Your task to perform on an android device: toggle location history Image 0: 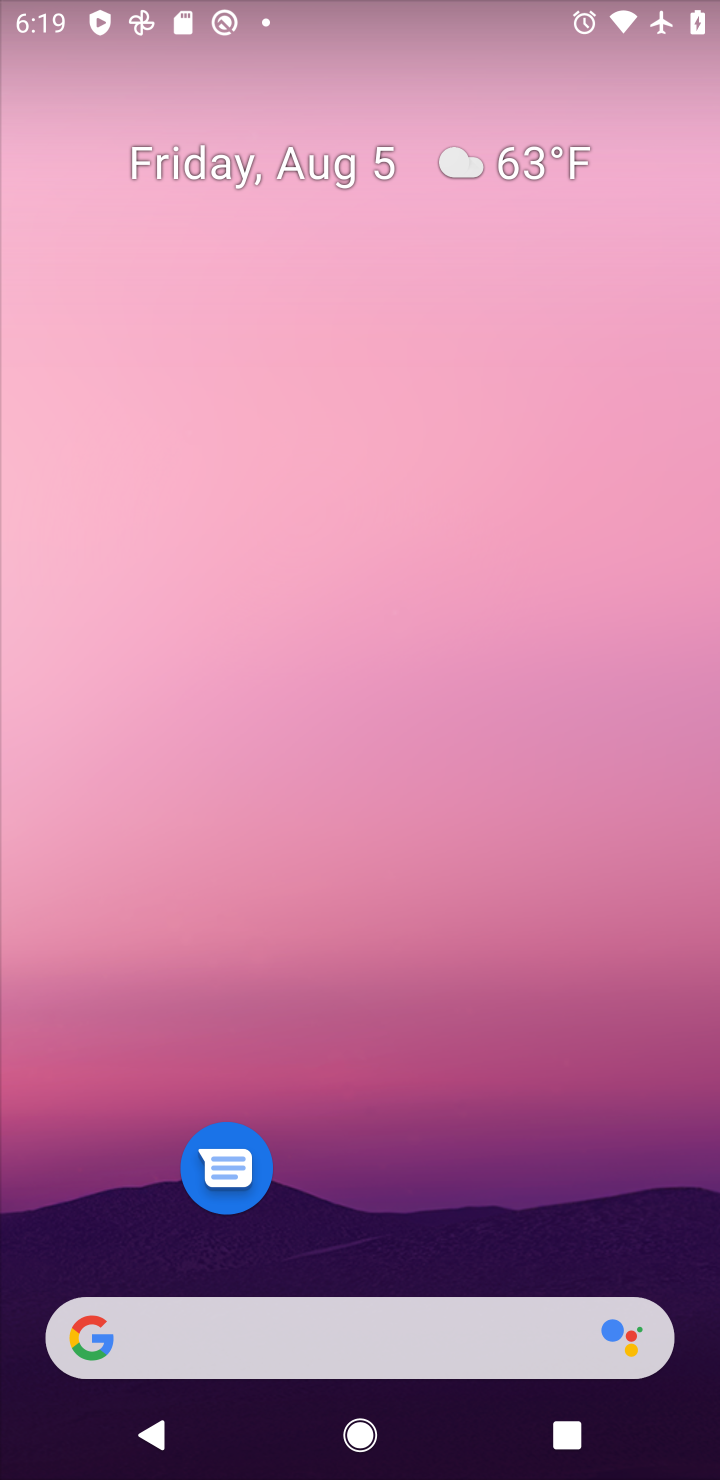
Step 0: press home button
Your task to perform on an android device: toggle location history Image 1: 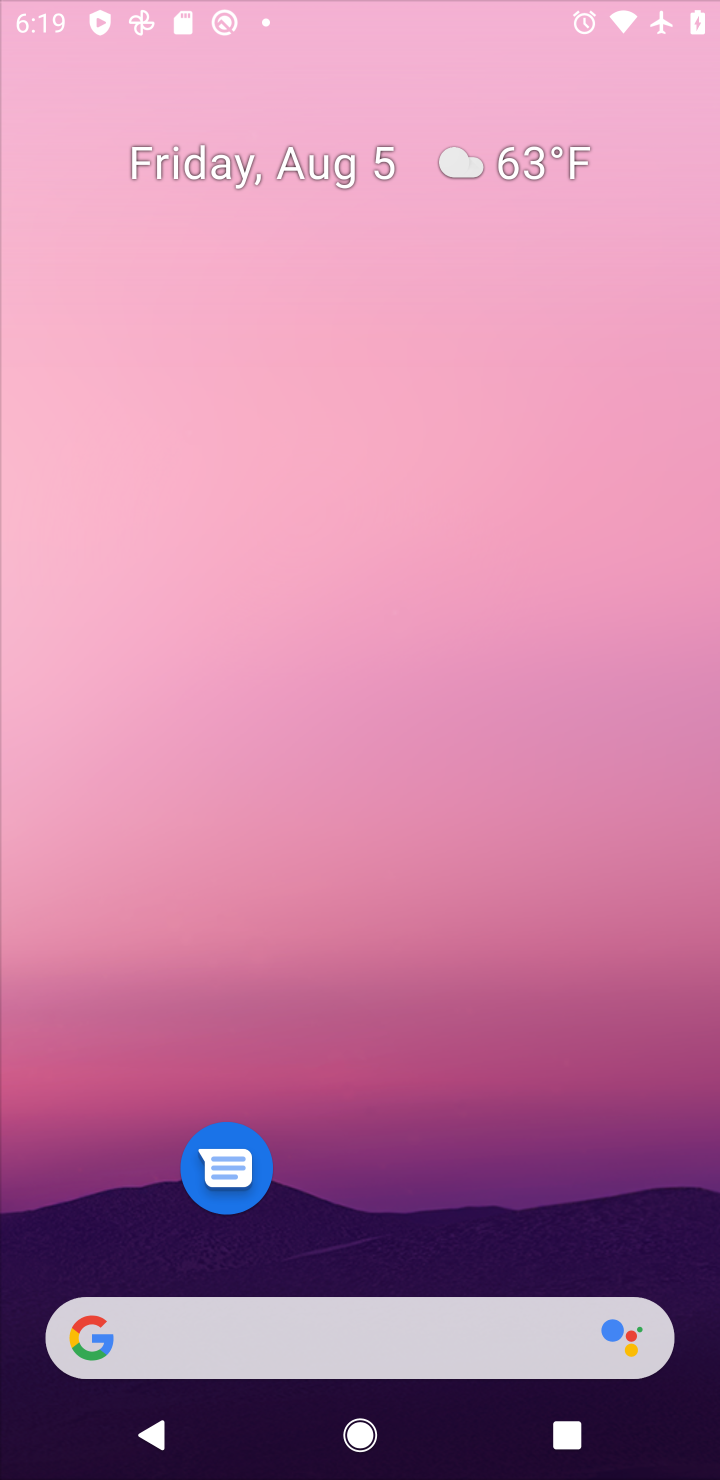
Step 1: drag from (378, 1246) to (576, 444)
Your task to perform on an android device: toggle location history Image 2: 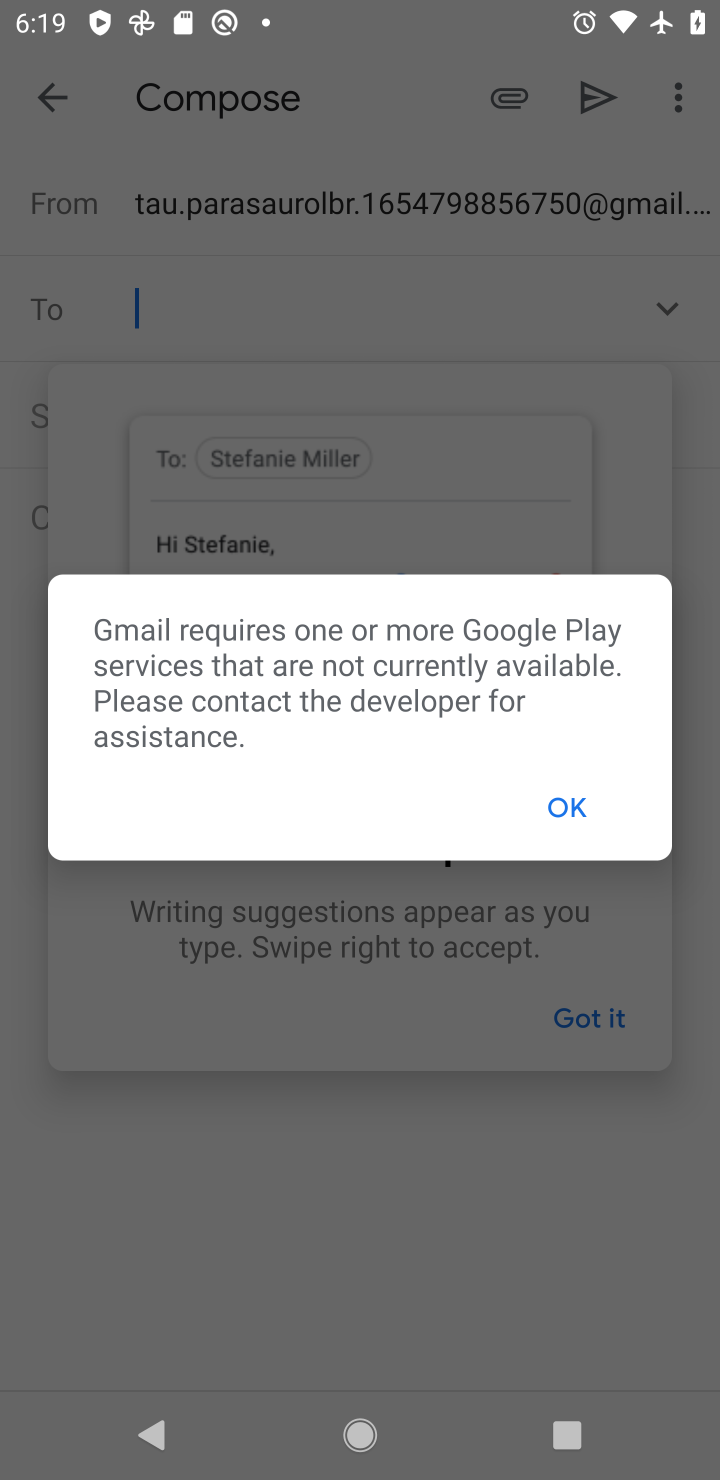
Step 2: press home button
Your task to perform on an android device: toggle location history Image 3: 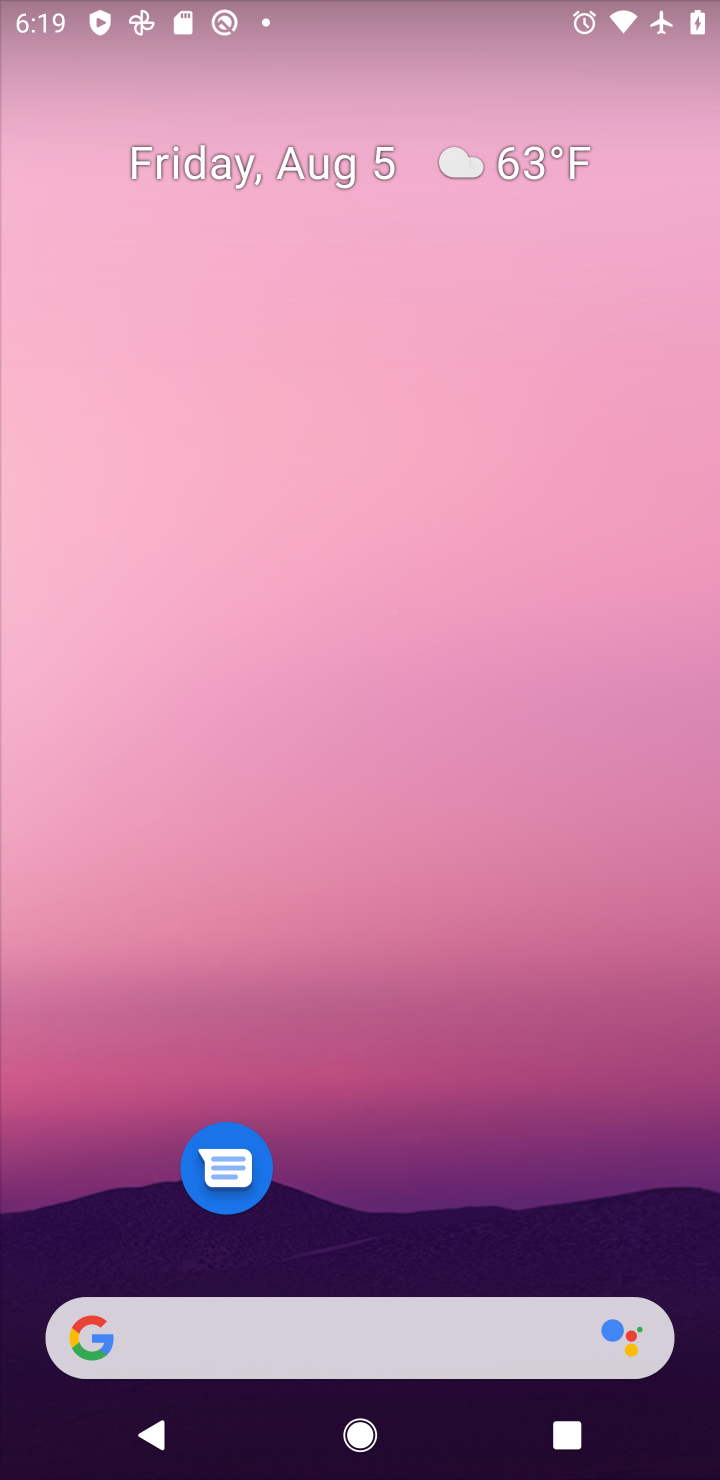
Step 3: drag from (438, 1259) to (329, 380)
Your task to perform on an android device: toggle location history Image 4: 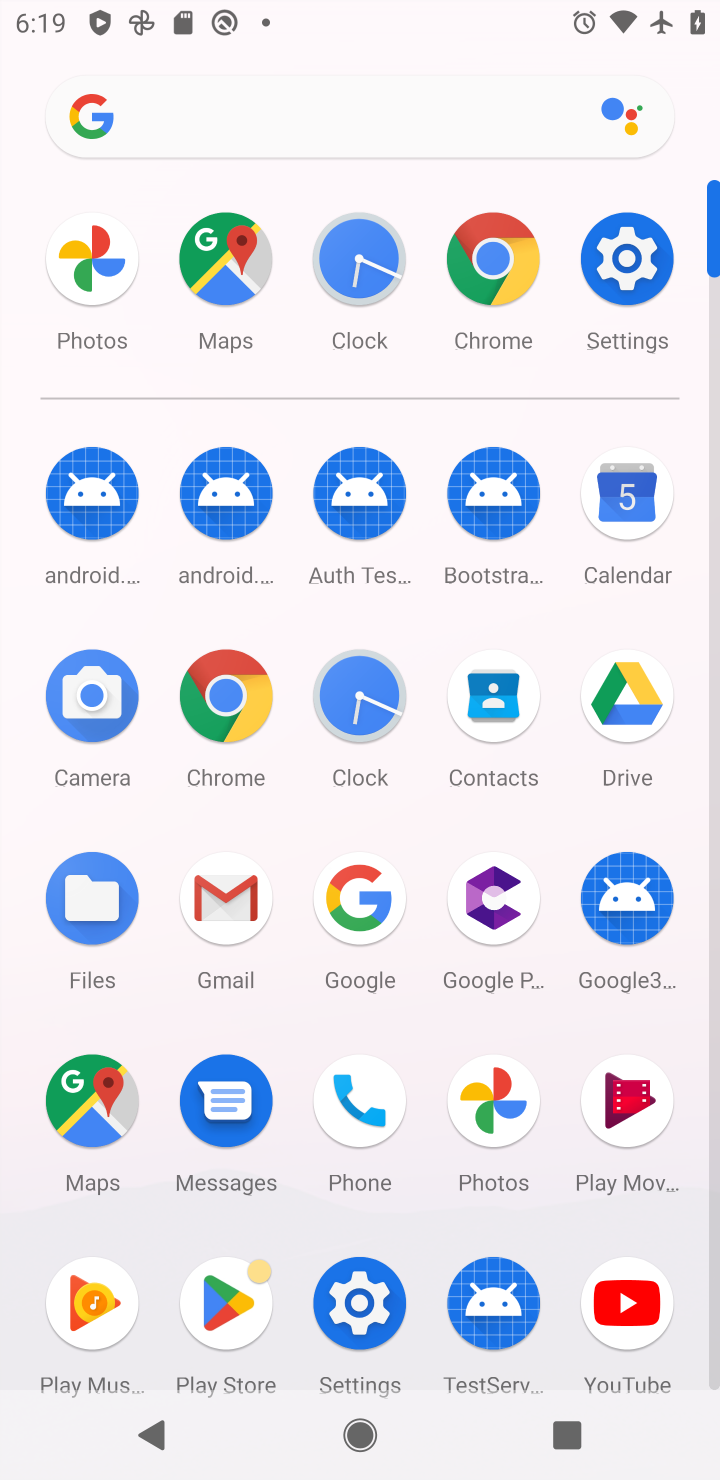
Step 4: click (626, 294)
Your task to perform on an android device: toggle location history Image 5: 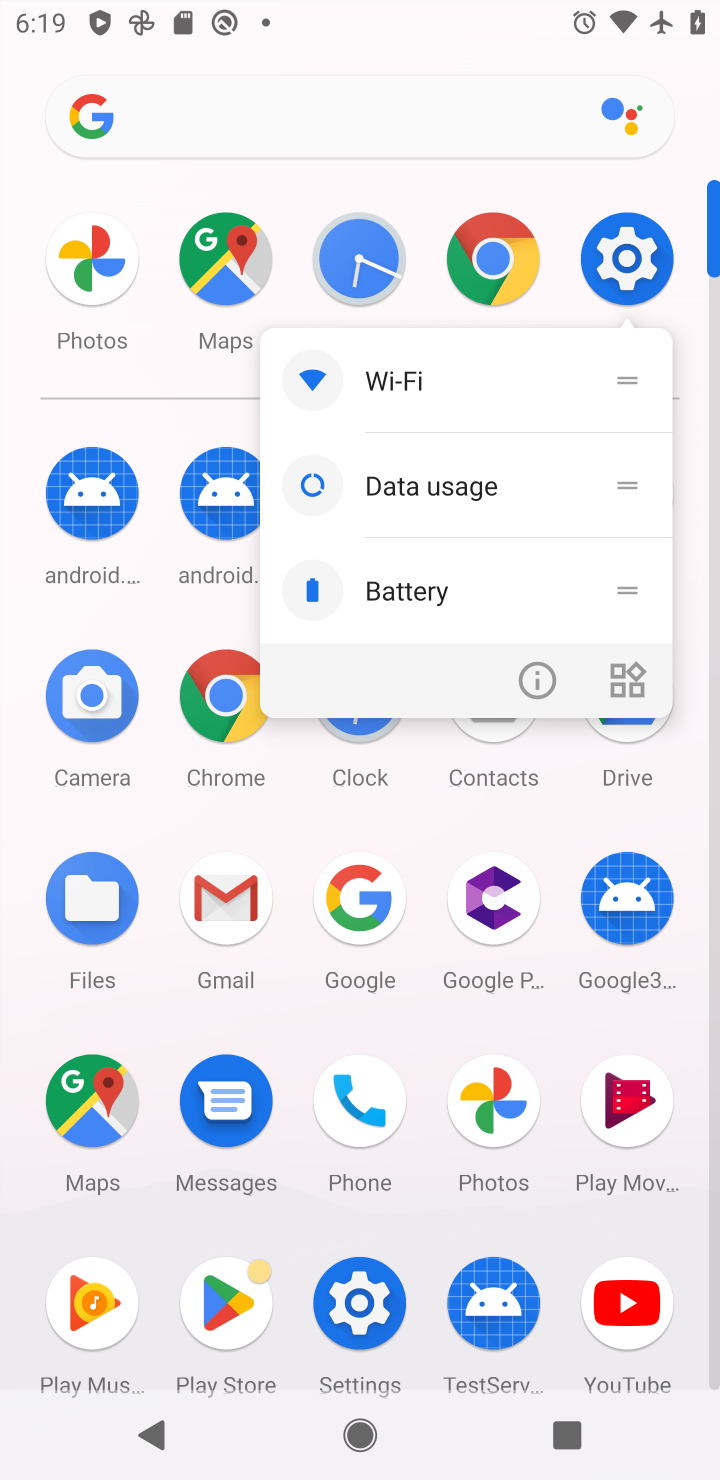
Step 5: click (626, 294)
Your task to perform on an android device: toggle location history Image 6: 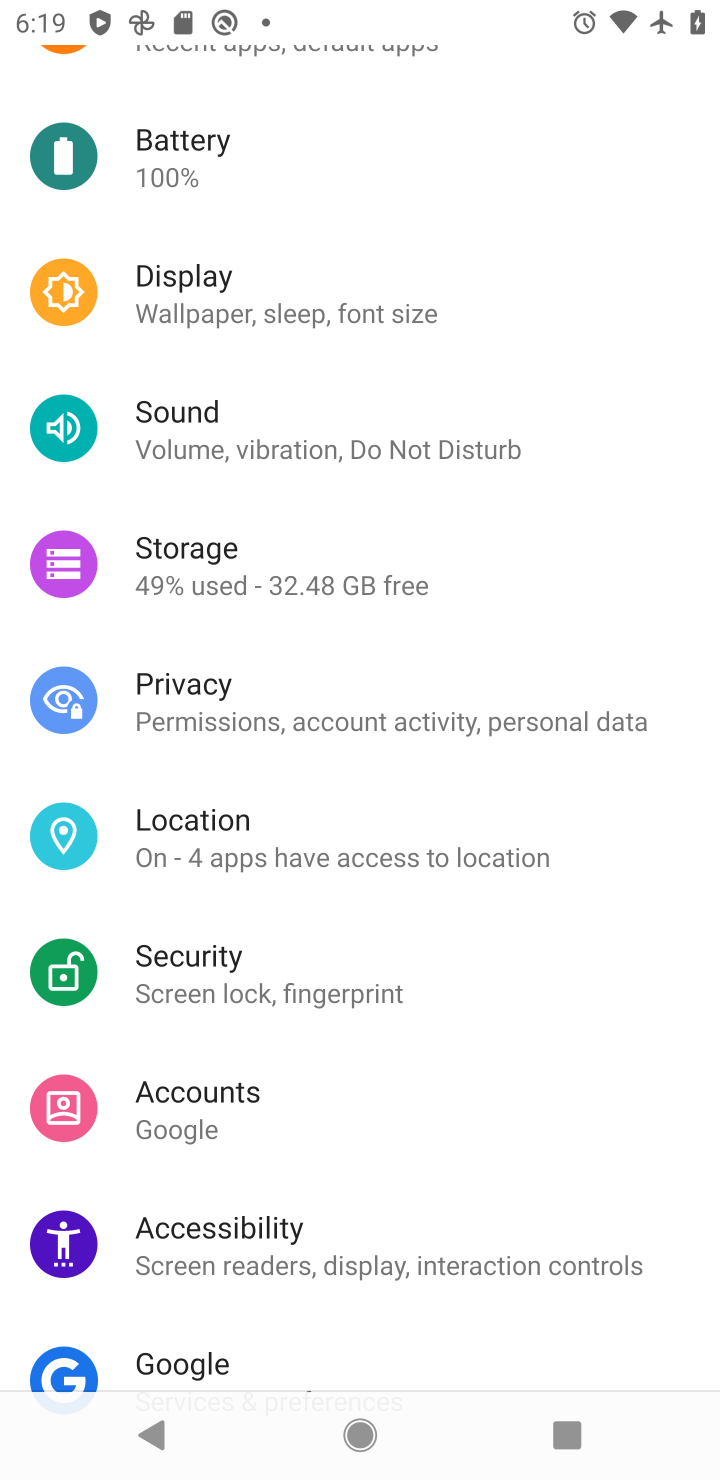
Step 6: click (166, 852)
Your task to perform on an android device: toggle location history Image 7: 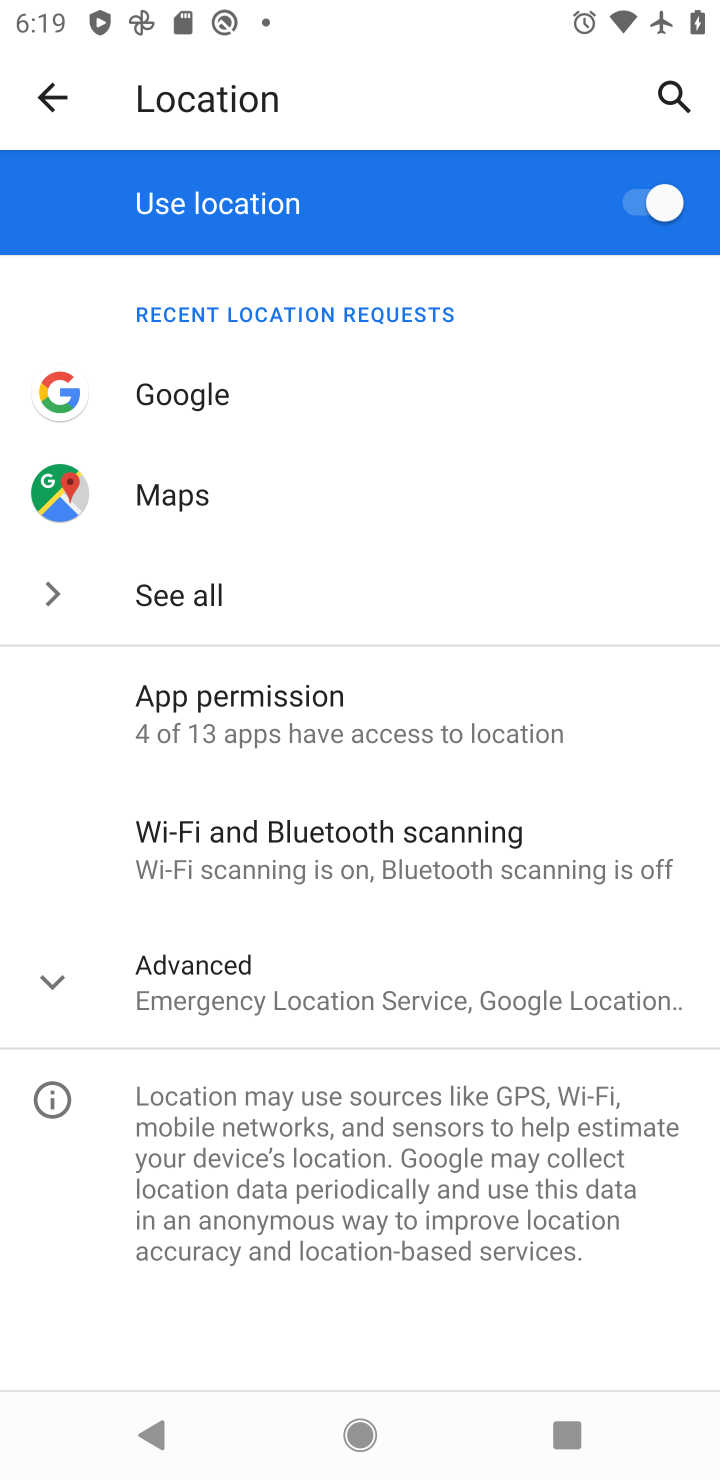
Step 7: click (180, 983)
Your task to perform on an android device: toggle location history Image 8: 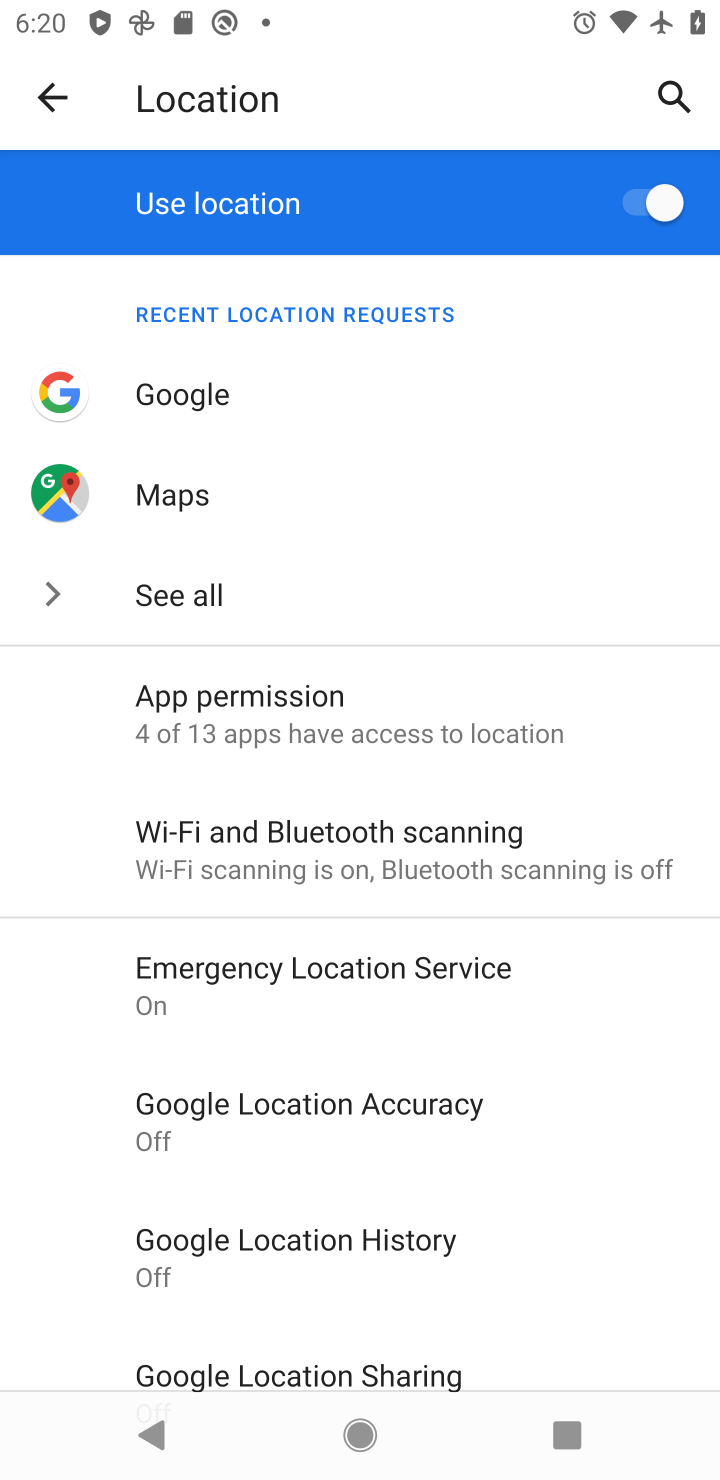
Step 8: click (375, 1236)
Your task to perform on an android device: toggle location history Image 9: 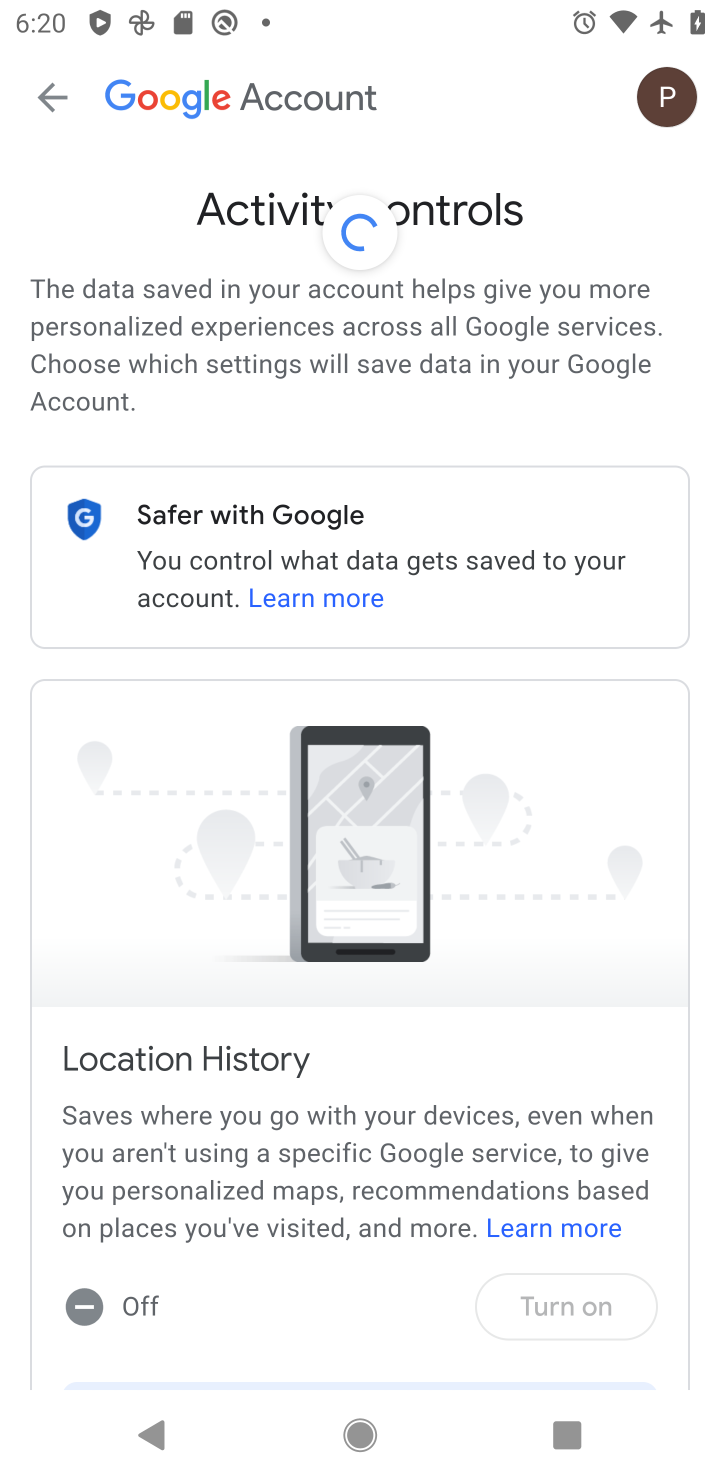
Step 9: click (576, 1311)
Your task to perform on an android device: toggle location history Image 10: 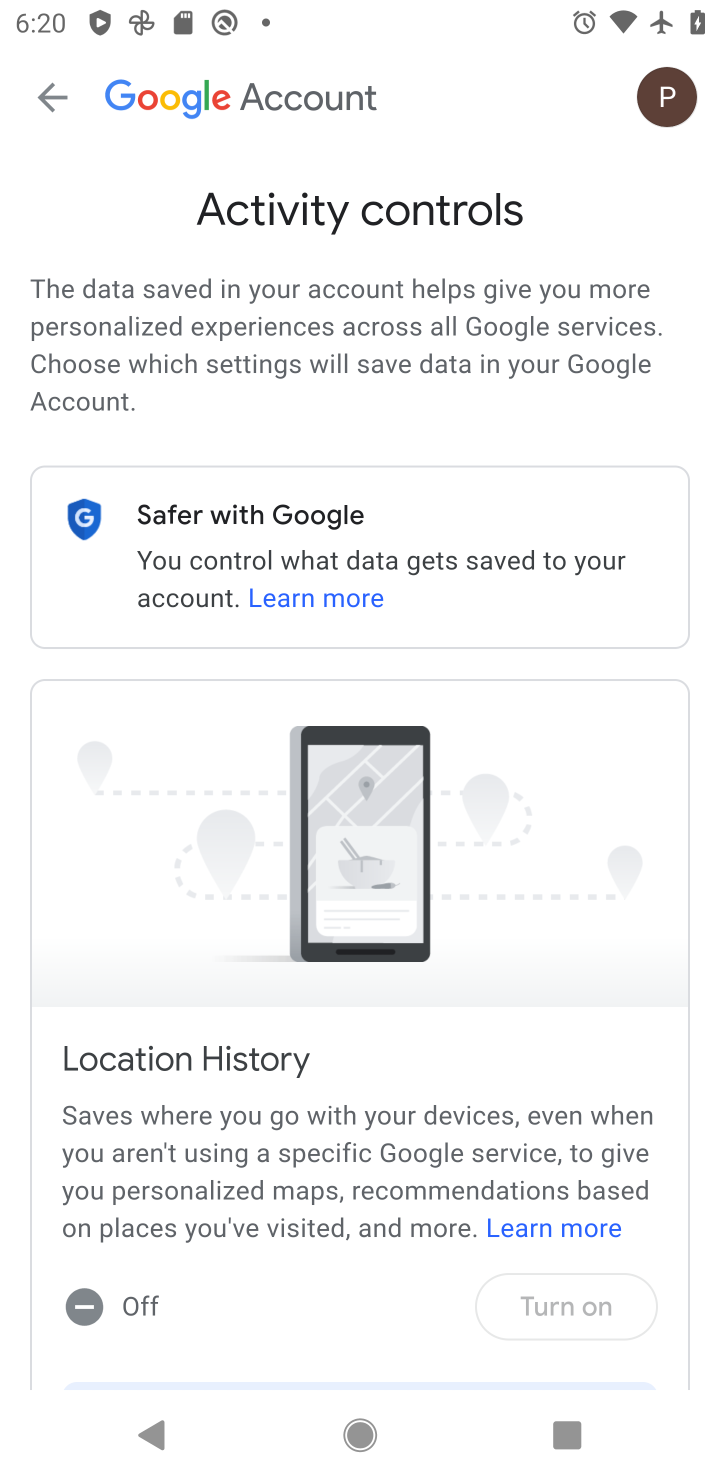
Step 10: task complete